Your task to perform on an android device: turn on data saver in the chrome app Image 0: 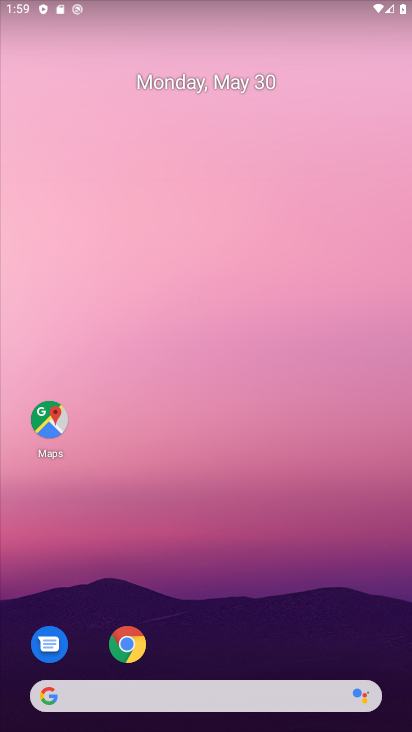
Step 0: click (137, 645)
Your task to perform on an android device: turn on data saver in the chrome app Image 1: 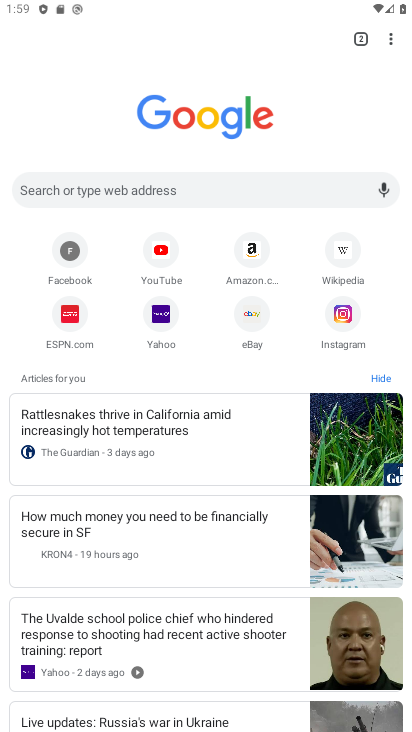
Step 1: click (393, 42)
Your task to perform on an android device: turn on data saver in the chrome app Image 2: 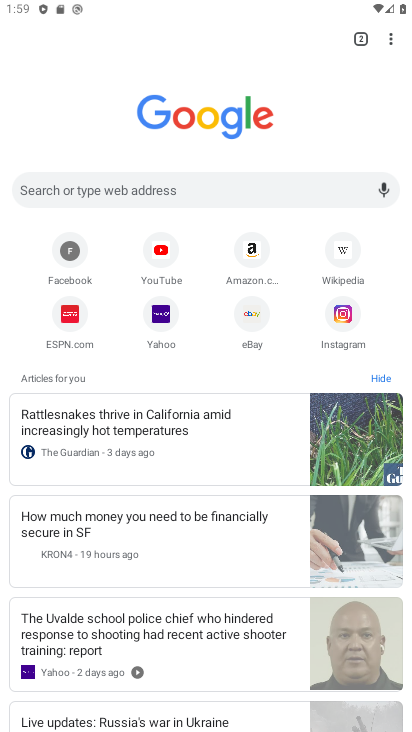
Step 2: drag from (393, 42) to (258, 335)
Your task to perform on an android device: turn on data saver in the chrome app Image 3: 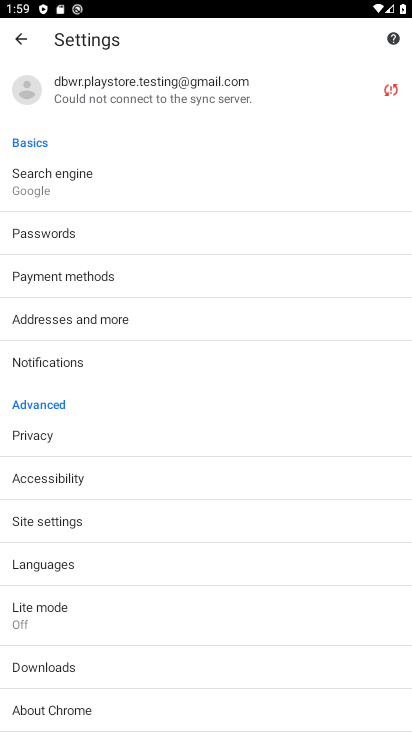
Step 3: click (36, 611)
Your task to perform on an android device: turn on data saver in the chrome app Image 4: 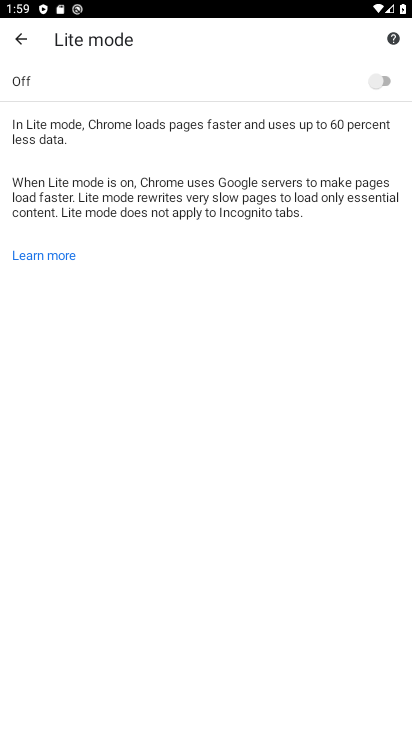
Step 4: click (382, 89)
Your task to perform on an android device: turn on data saver in the chrome app Image 5: 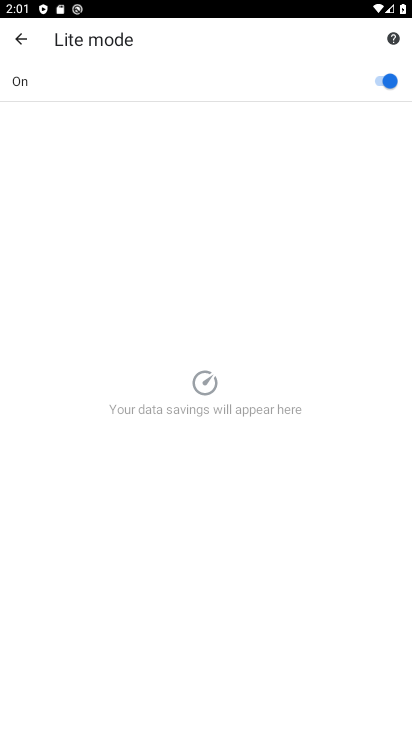
Step 5: task complete